Your task to perform on an android device: choose inbox layout in the gmail app Image 0: 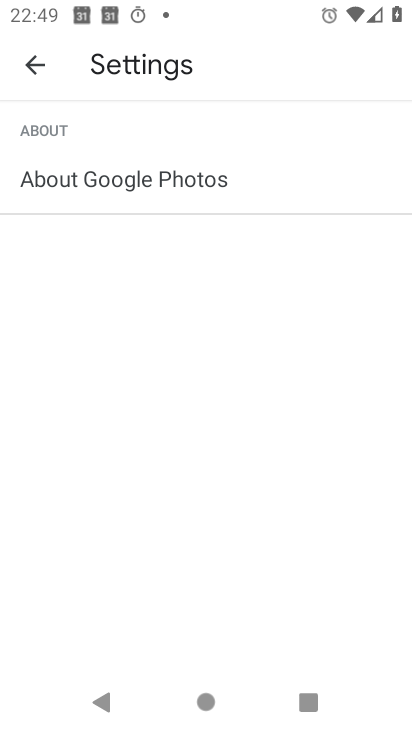
Step 0: press home button
Your task to perform on an android device: choose inbox layout in the gmail app Image 1: 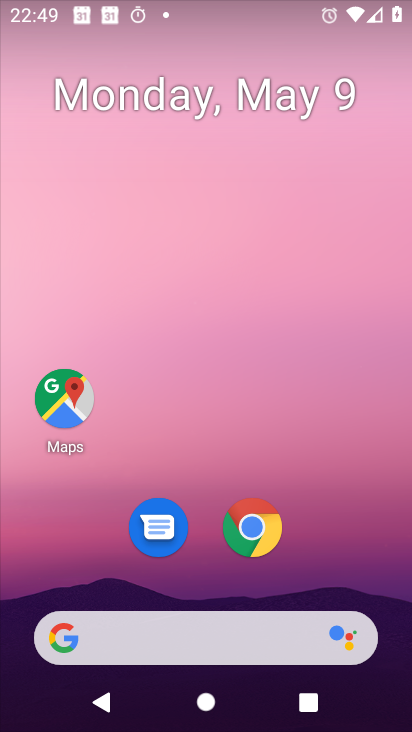
Step 1: drag from (204, 491) to (188, 63)
Your task to perform on an android device: choose inbox layout in the gmail app Image 2: 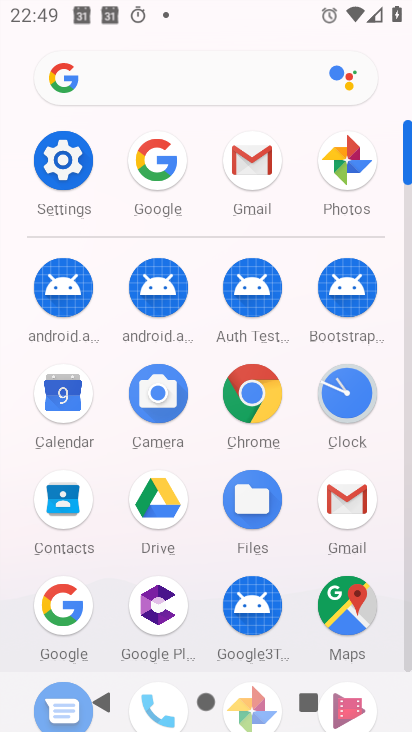
Step 2: click (248, 158)
Your task to perform on an android device: choose inbox layout in the gmail app Image 3: 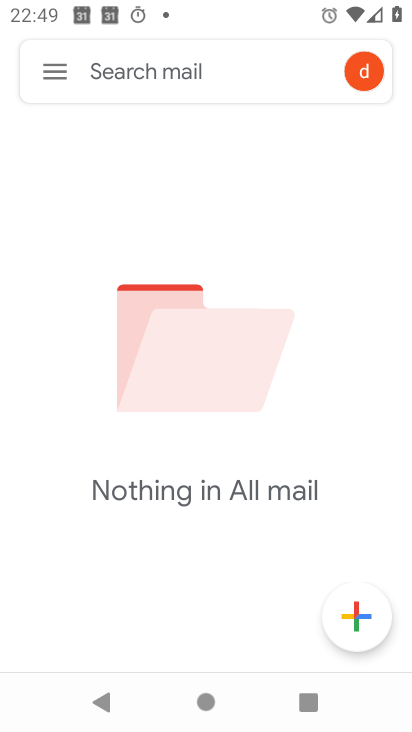
Step 3: click (43, 74)
Your task to perform on an android device: choose inbox layout in the gmail app Image 4: 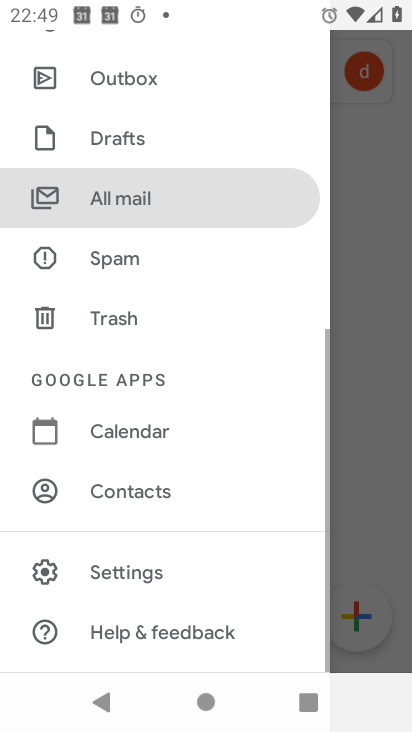
Step 4: drag from (184, 524) to (166, 329)
Your task to perform on an android device: choose inbox layout in the gmail app Image 5: 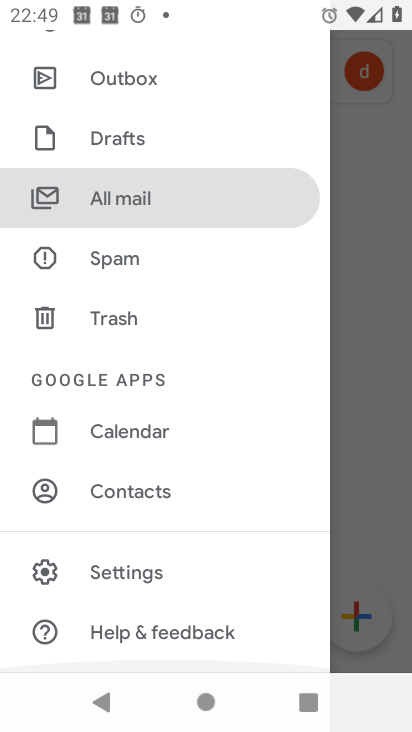
Step 5: click (156, 562)
Your task to perform on an android device: choose inbox layout in the gmail app Image 6: 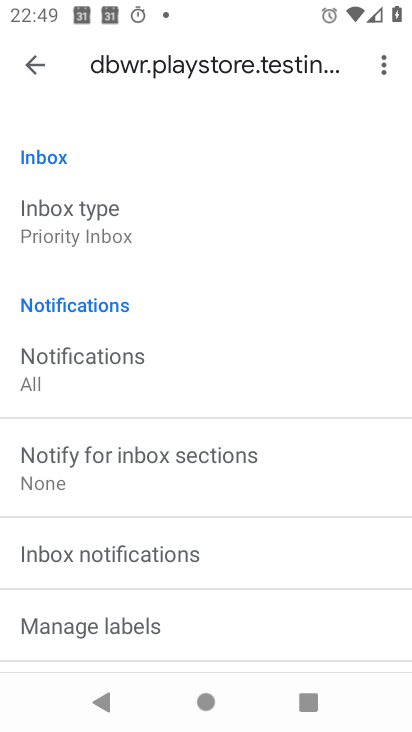
Step 6: click (107, 235)
Your task to perform on an android device: choose inbox layout in the gmail app Image 7: 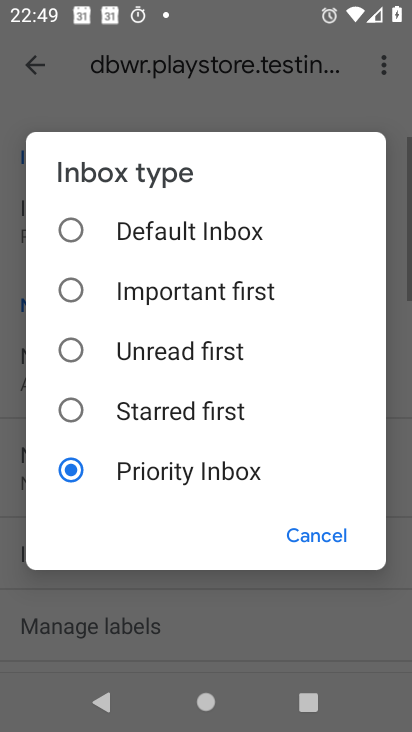
Step 7: click (67, 236)
Your task to perform on an android device: choose inbox layout in the gmail app Image 8: 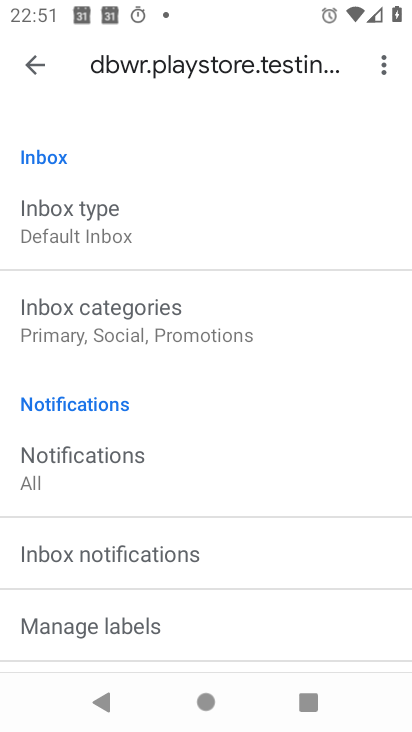
Step 8: task complete